Your task to perform on an android device: turn off javascript in the chrome app Image 0: 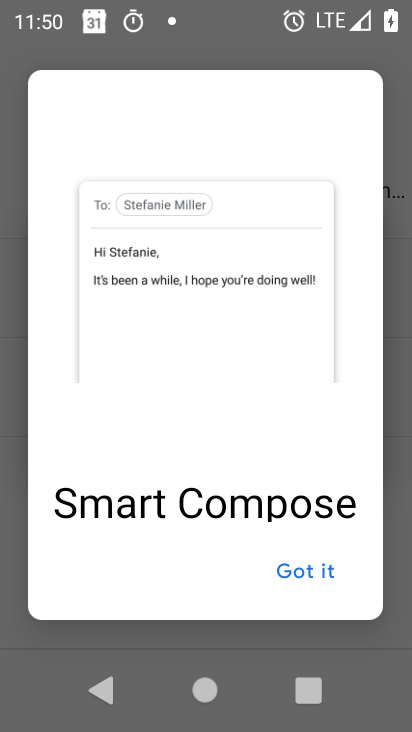
Step 0: press home button
Your task to perform on an android device: turn off javascript in the chrome app Image 1: 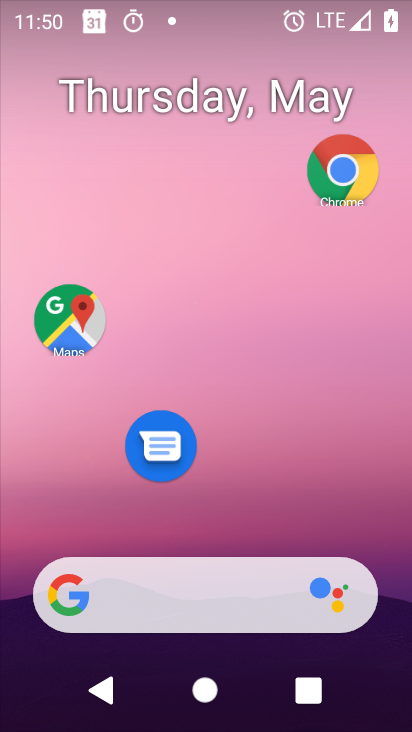
Step 1: drag from (297, 622) to (352, 13)
Your task to perform on an android device: turn off javascript in the chrome app Image 2: 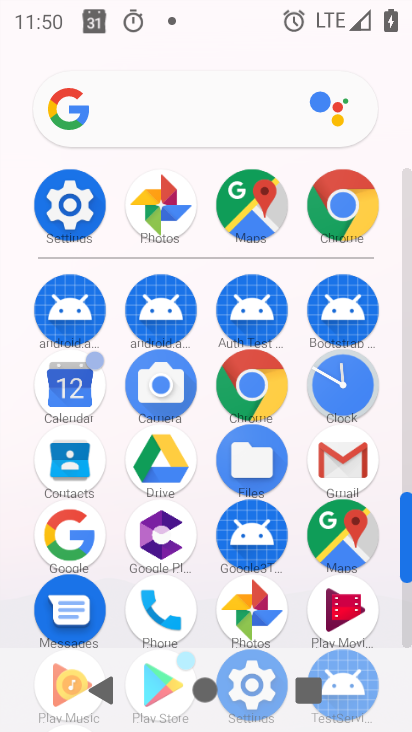
Step 2: click (251, 396)
Your task to perform on an android device: turn off javascript in the chrome app Image 3: 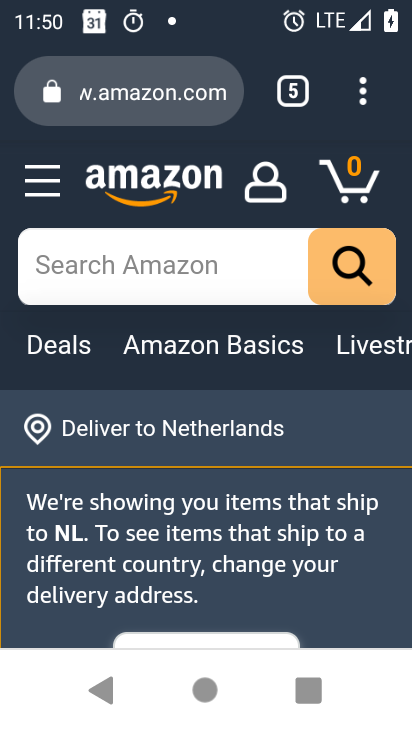
Step 3: click (375, 86)
Your task to perform on an android device: turn off javascript in the chrome app Image 4: 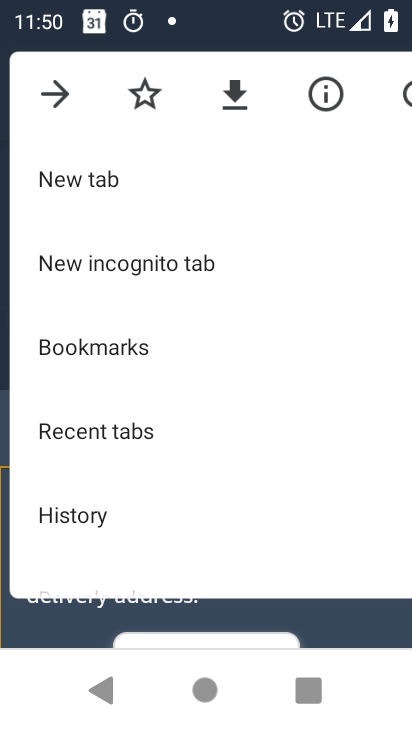
Step 4: drag from (229, 524) to (242, 49)
Your task to perform on an android device: turn off javascript in the chrome app Image 5: 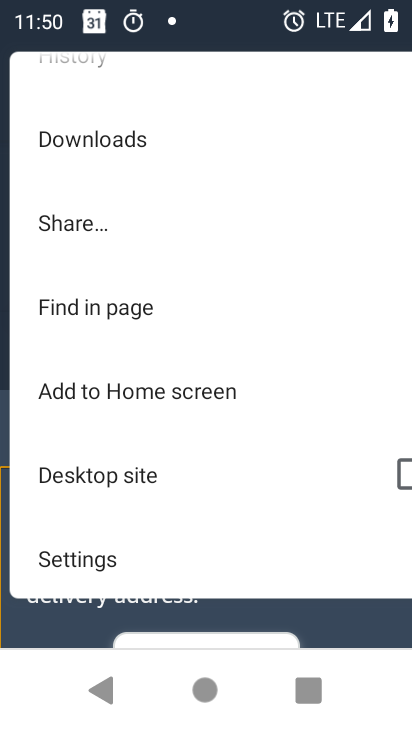
Step 5: drag from (139, 537) to (194, 134)
Your task to perform on an android device: turn off javascript in the chrome app Image 6: 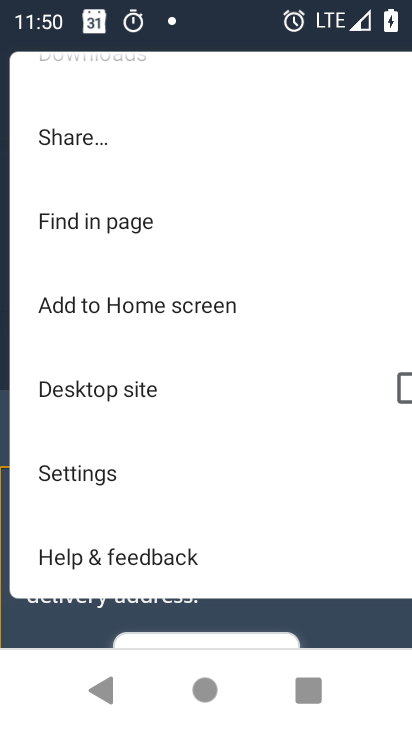
Step 6: click (136, 483)
Your task to perform on an android device: turn off javascript in the chrome app Image 7: 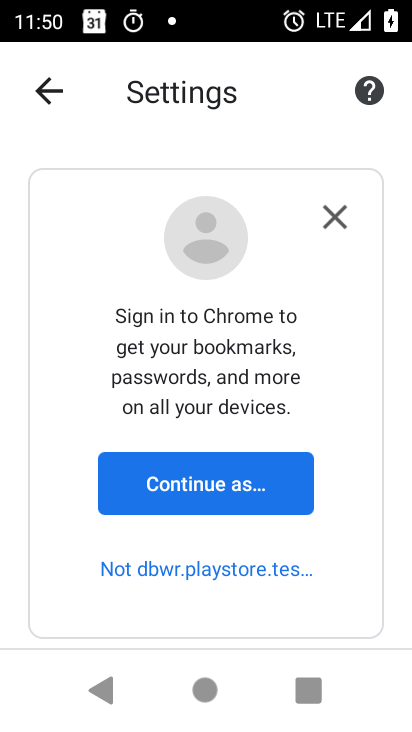
Step 7: drag from (292, 609) to (349, 68)
Your task to perform on an android device: turn off javascript in the chrome app Image 8: 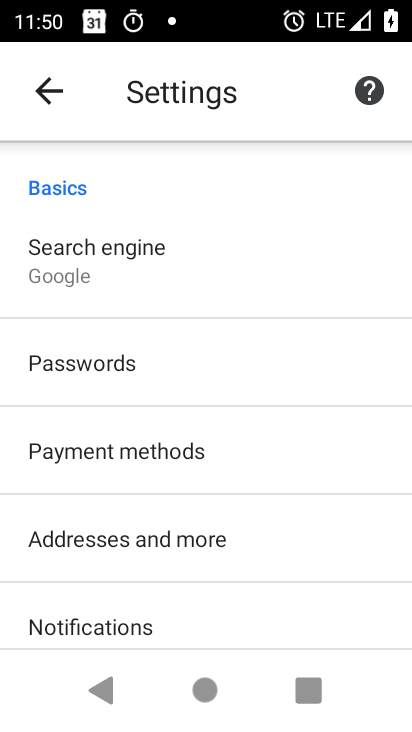
Step 8: drag from (204, 619) to (247, 188)
Your task to perform on an android device: turn off javascript in the chrome app Image 9: 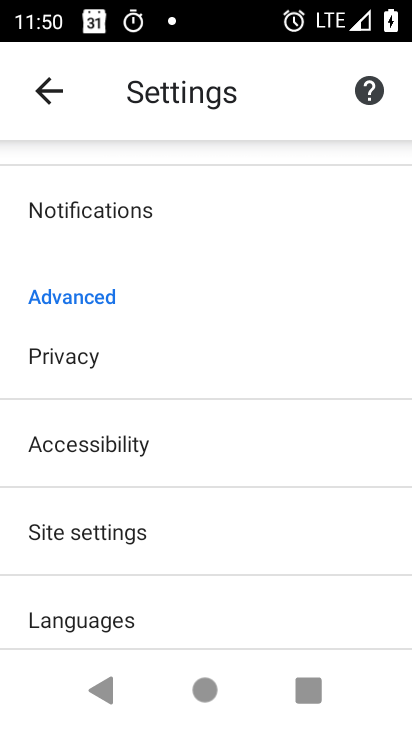
Step 9: click (173, 553)
Your task to perform on an android device: turn off javascript in the chrome app Image 10: 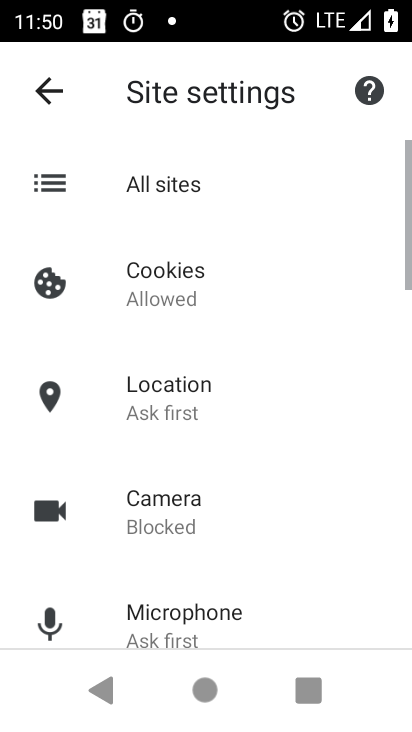
Step 10: drag from (188, 627) to (258, 140)
Your task to perform on an android device: turn off javascript in the chrome app Image 11: 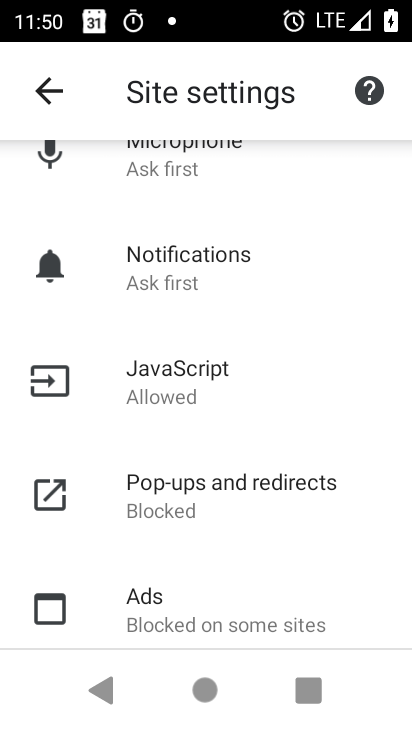
Step 11: drag from (253, 606) to (306, 177)
Your task to perform on an android device: turn off javascript in the chrome app Image 12: 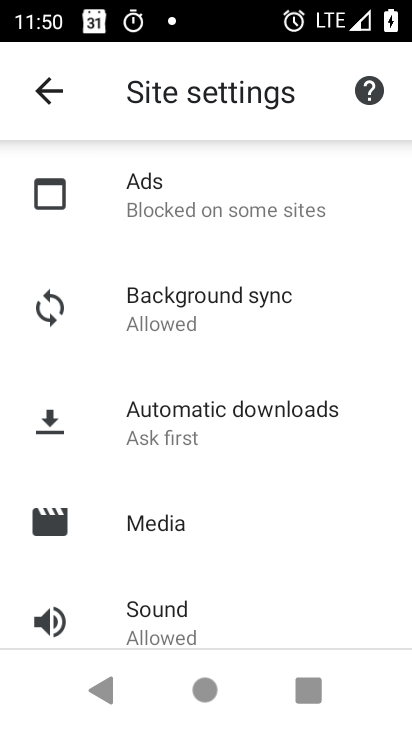
Step 12: drag from (208, 218) to (242, 655)
Your task to perform on an android device: turn off javascript in the chrome app Image 13: 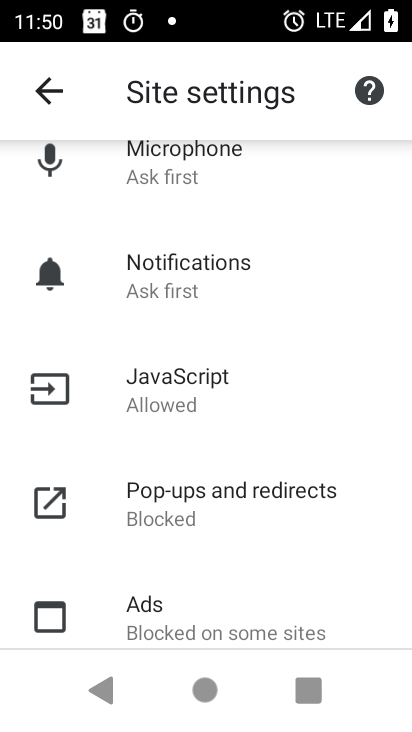
Step 13: click (202, 400)
Your task to perform on an android device: turn off javascript in the chrome app Image 14: 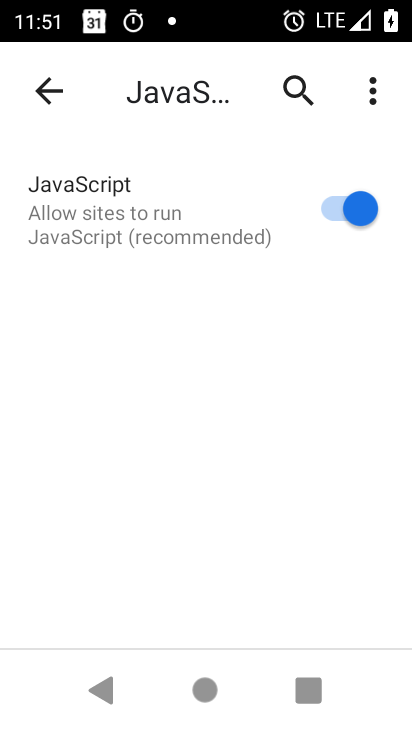
Step 14: click (330, 206)
Your task to perform on an android device: turn off javascript in the chrome app Image 15: 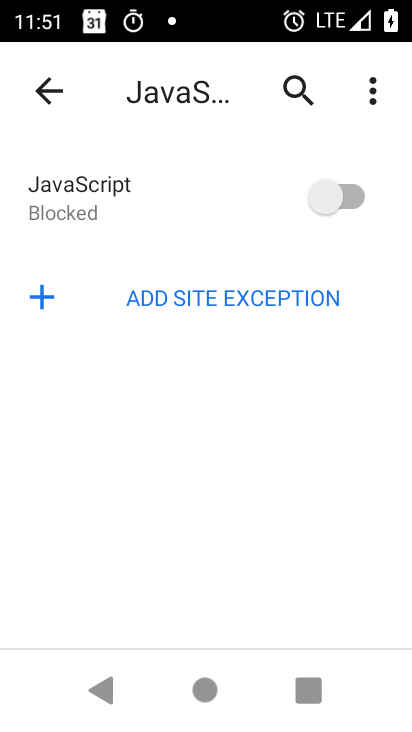
Step 15: task complete